Your task to perform on an android device: Open the Play Movies app and select the watchlist tab. Image 0: 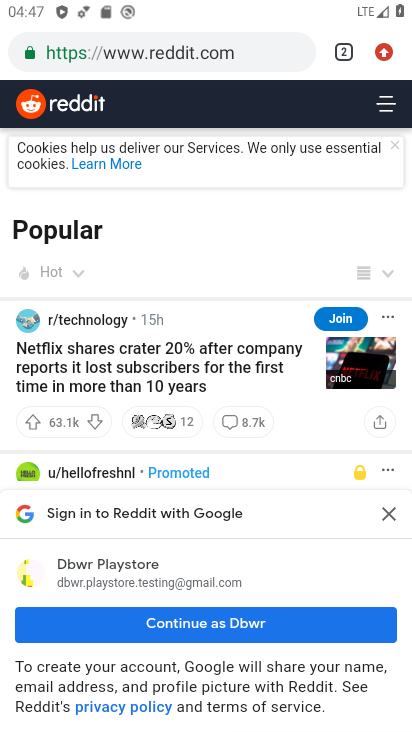
Step 0: press back button
Your task to perform on an android device: Open the Play Movies app and select the watchlist tab. Image 1: 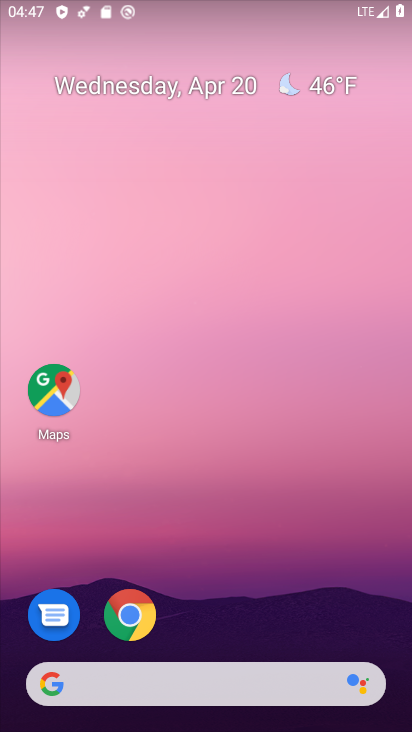
Step 1: drag from (266, 439) to (319, 27)
Your task to perform on an android device: Open the Play Movies app and select the watchlist tab. Image 2: 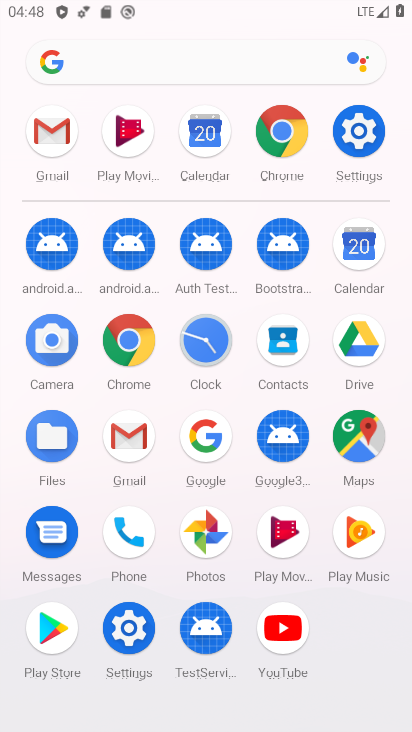
Step 2: click (280, 527)
Your task to perform on an android device: Open the Play Movies app and select the watchlist tab. Image 3: 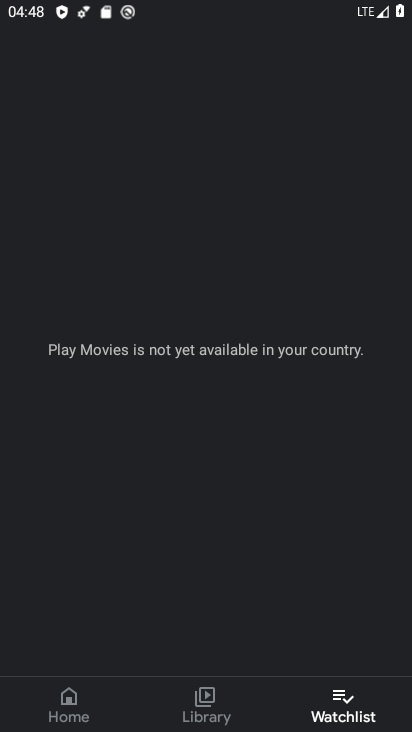
Step 3: task complete